Your task to perform on an android device: check the backup settings in the google photos Image 0: 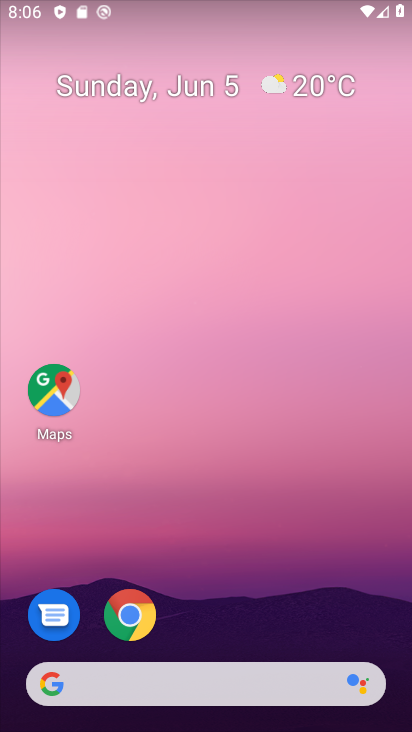
Step 0: drag from (140, 475) to (111, 229)
Your task to perform on an android device: check the backup settings in the google photos Image 1: 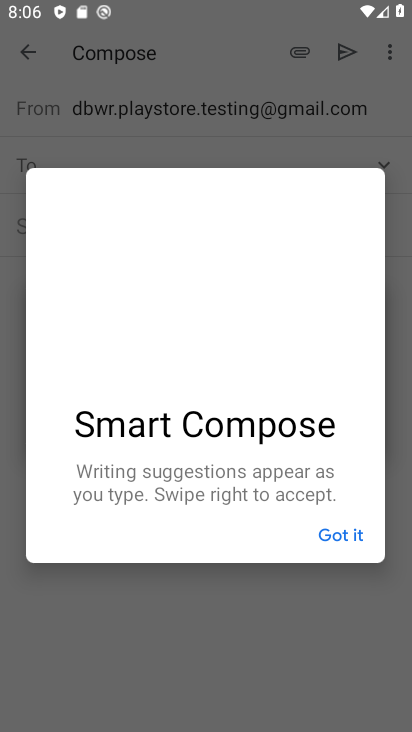
Step 1: press home button
Your task to perform on an android device: check the backup settings in the google photos Image 2: 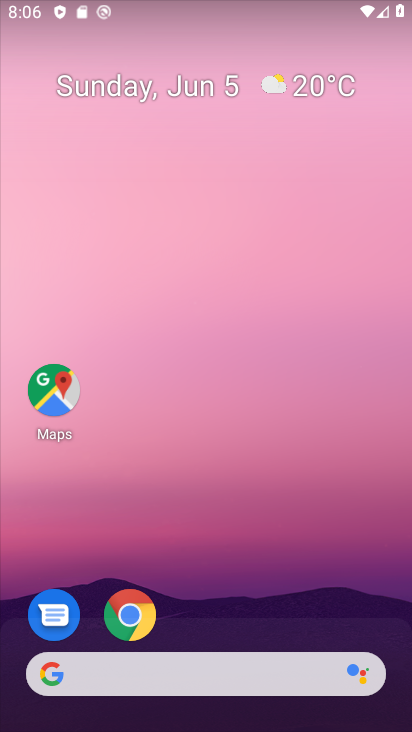
Step 2: drag from (209, 676) to (98, 26)
Your task to perform on an android device: check the backup settings in the google photos Image 3: 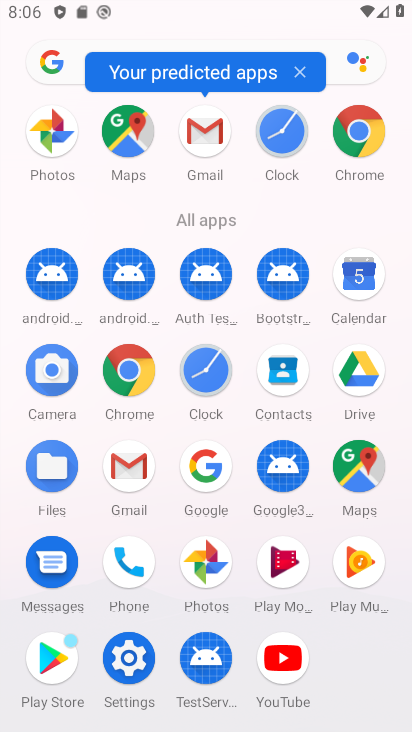
Step 3: click (206, 565)
Your task to perform on an android device: check the backup settings in the google photos Image 4: 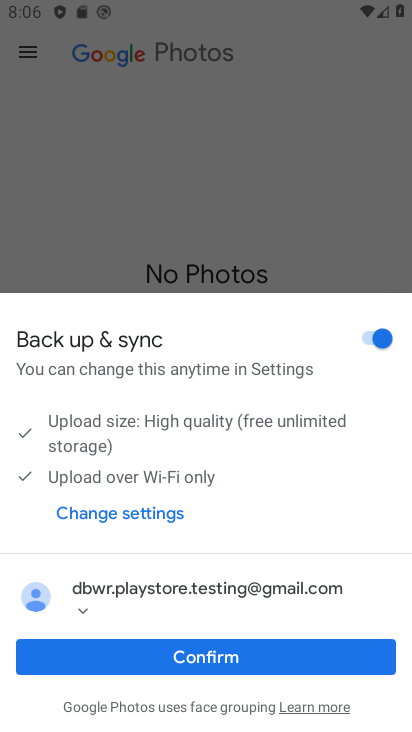
Step 4: click (224, 663)
Your task to perform on an android device: check the backup settings in the google photos Image 5: 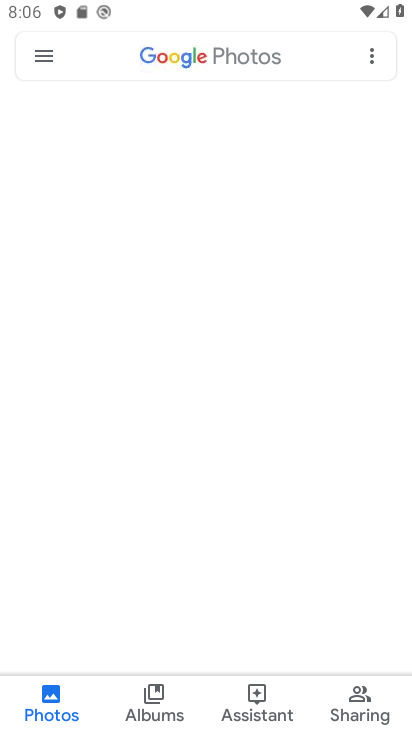
Step 5: click (33, 65)
Your task to perform on an android device: check the backup settings in the google photos Image 6: 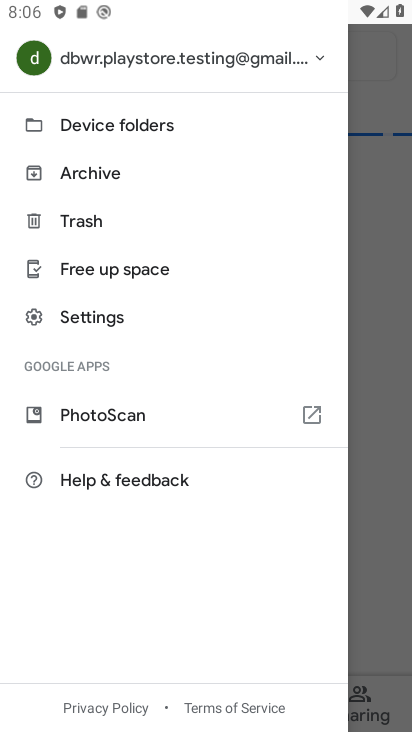
Step 6: click (67, 314)
Your task to perform on an android device: check the backup settings in the google photos Image 7: 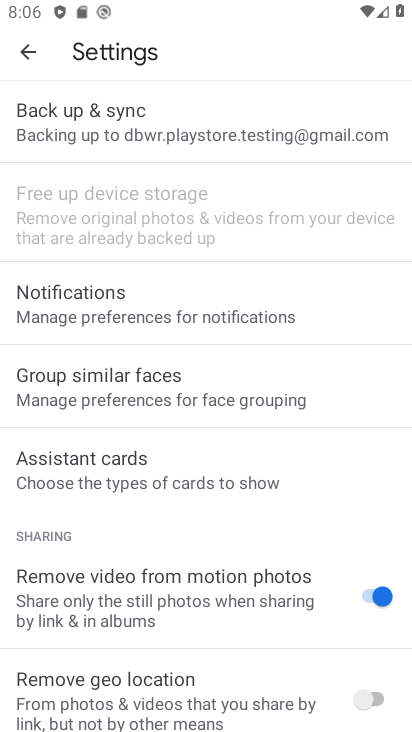
Step 7: click (236, 66)
Your task to perform on an android device: check the backup settings in the google photos Image 8: 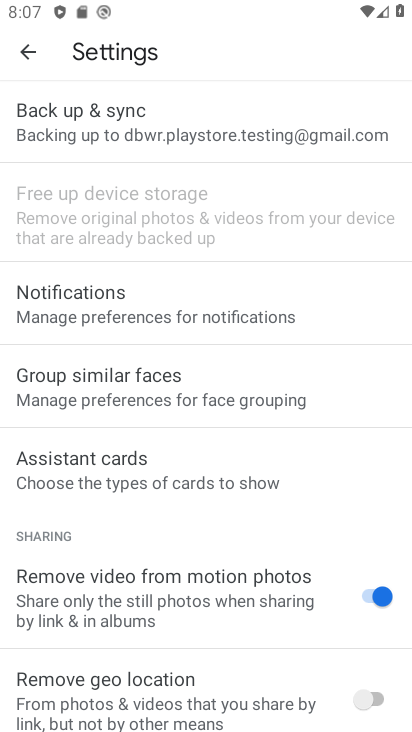
Step 8: click (179, 139)
Your task to perform on an android device: check the backup settings in the google photos Image 9: 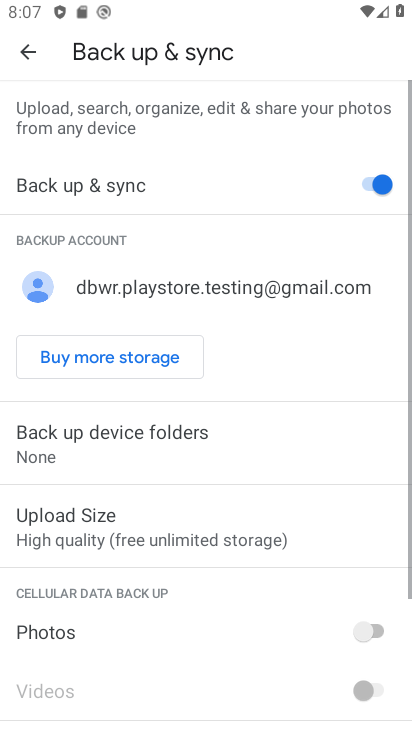
Step 9: task complete